Your task to perform on an android device: open a bookmark in the chrome app Image 0: 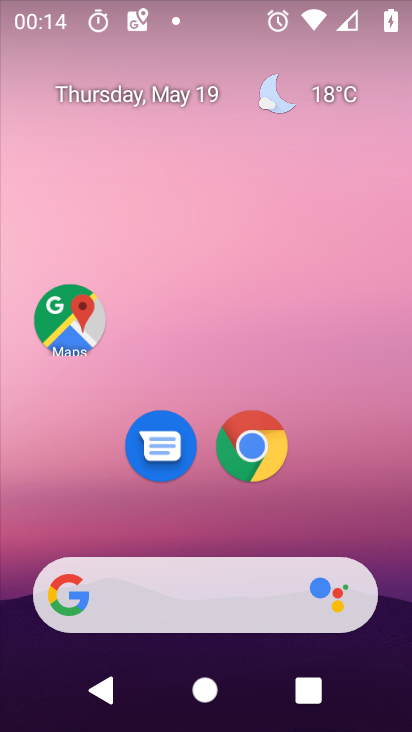
Step 0: press home button
Your task to perform on an android device: open a bookmark in the chrome app Image 1: 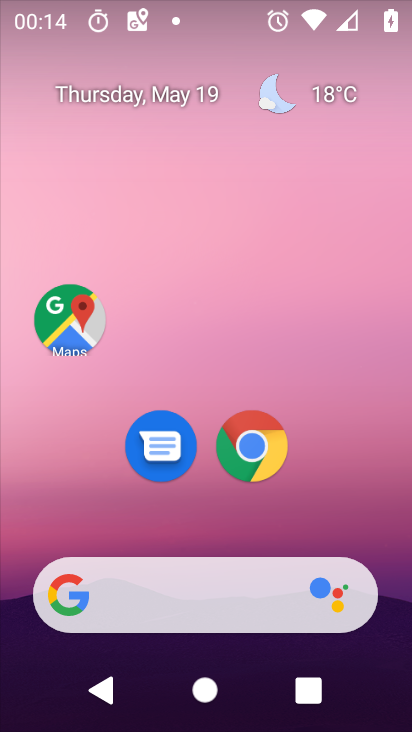
Step 1: click (238, 460)
Your task to perform on an android device: open a bookmark in the chrome app Image 2: 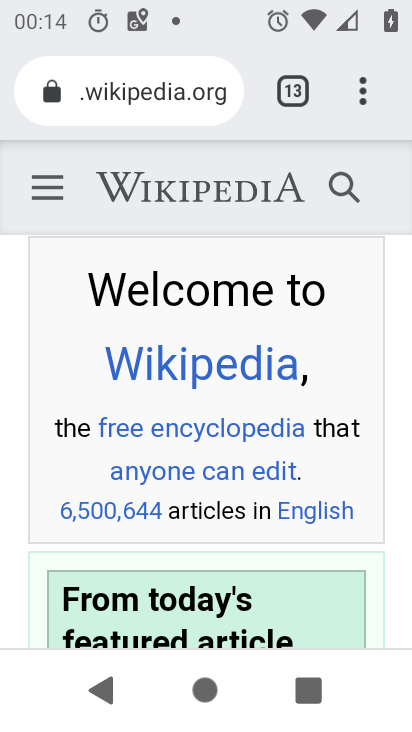
Step 2: task complete